Your task to perform on an android device: Open Yahoo.com Image 0: 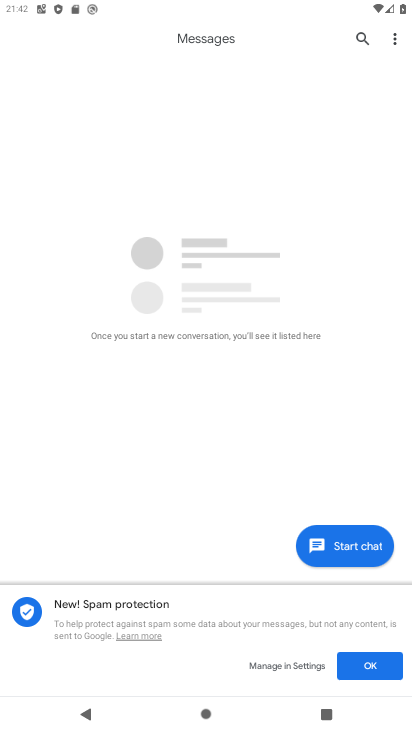
Step 0: press home button
Your task to perform on an android device: Open Yahoo.com Image 1: 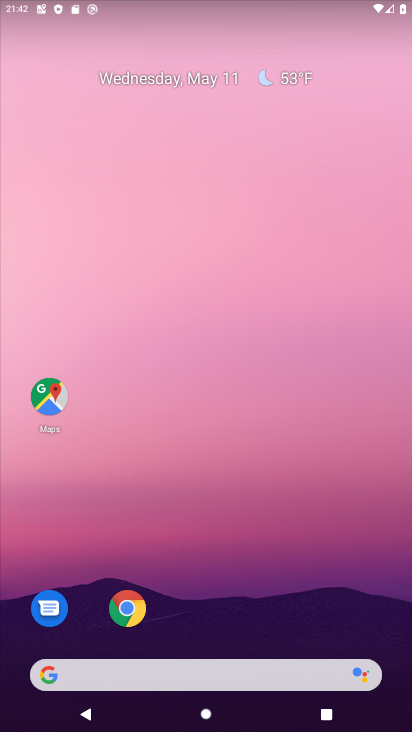
Step 1: click (129, 618)
Your task to perform on an android device: Open Yahoo.com Image 2: 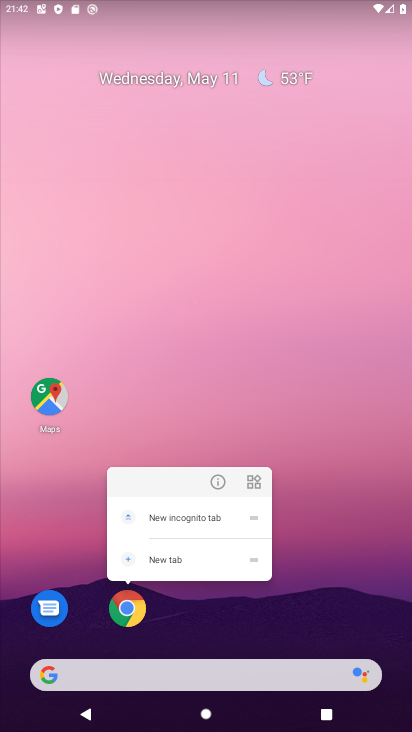
Step 2: click (136, 604)
Your task to perform on an android device: Open Yahoo.com Image 3: 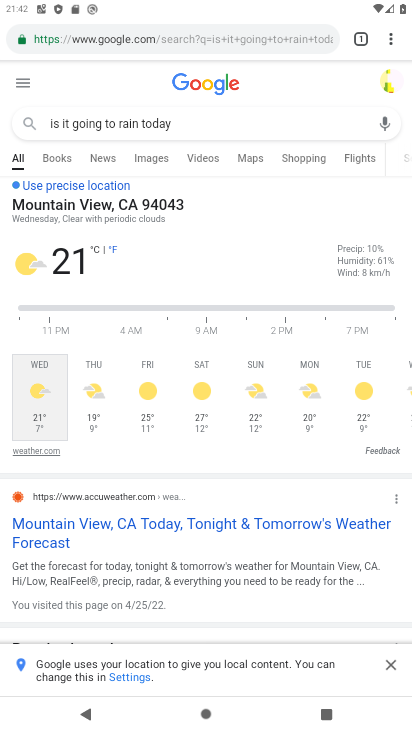
Step 3: click (257, 38)
Your task to perform on an android device: Open Yahoo.com Image 4: 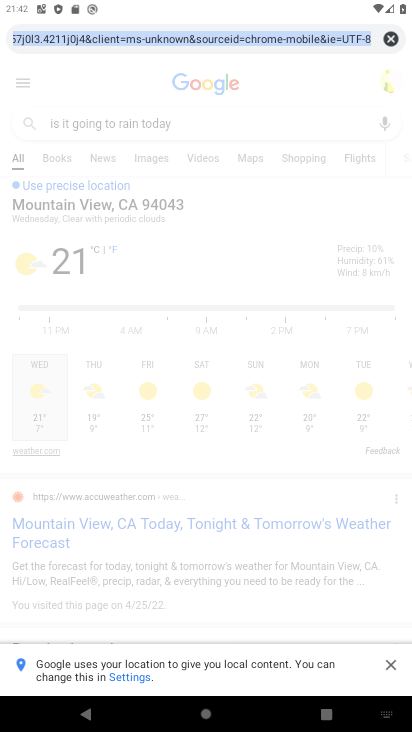
Step 4: type "yahoo.com"
Your task to perform on an android device: Open Yahoo.com Image 5: 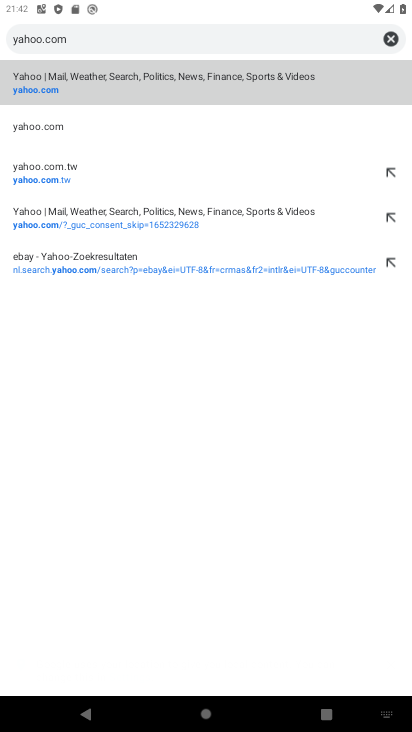
Step 5: click (70, 79)
Your task to perform on an android device: Open Yahoo.com Image 6: 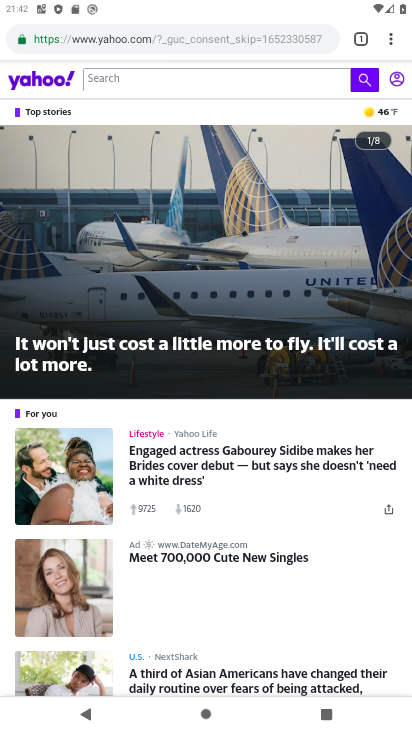
Step 6: task complete